Your task to perform on an android device: open device folders in google photos Image 0: 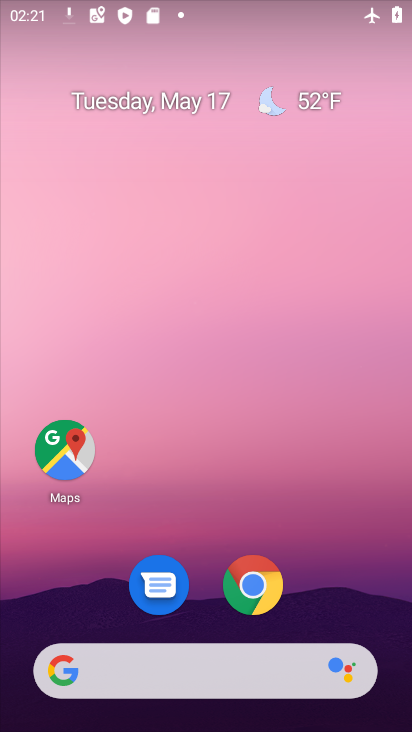
Step 0: drag from (341, 566) to (287, 66)
Your task to perform on an android device: open device folders in google photos Image 1: 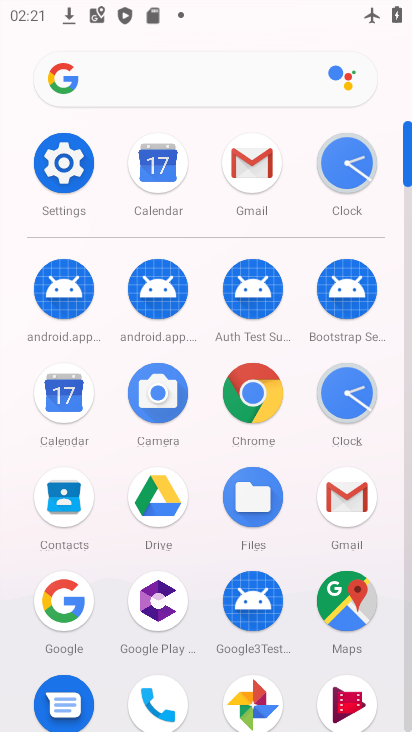
Step 1: drag from (213, 438) to (193, 204)
Your task to perform on an android device: open device folders in google photos Image 2: 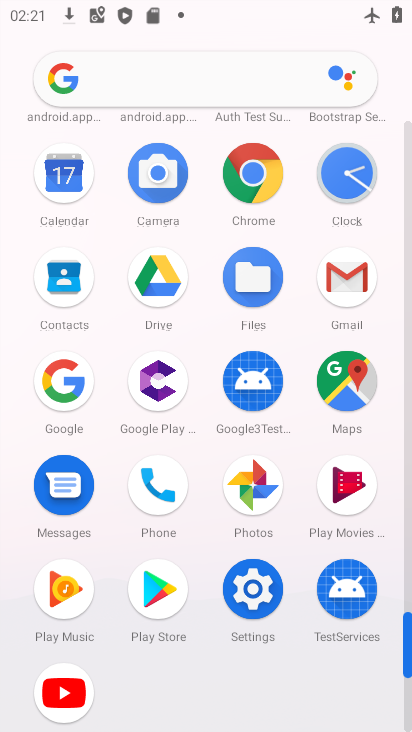
Step 2: click (251, 476)
Your task to perform on an android device: open device folders in google photos Image 3: 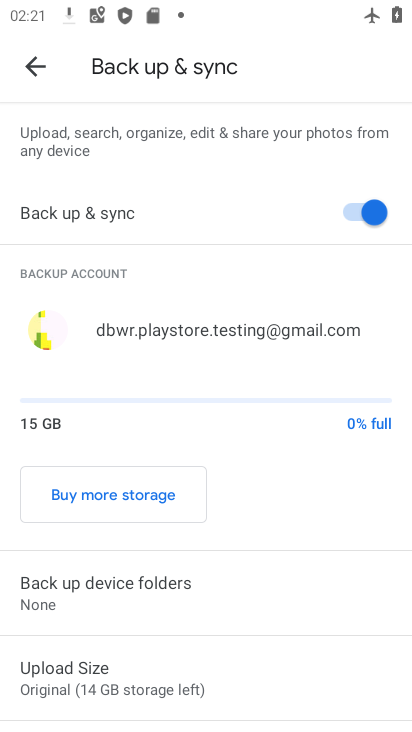
Step 3: click (29, 57)
Your task to perform on an android device: open device folders in google photos Image 4: 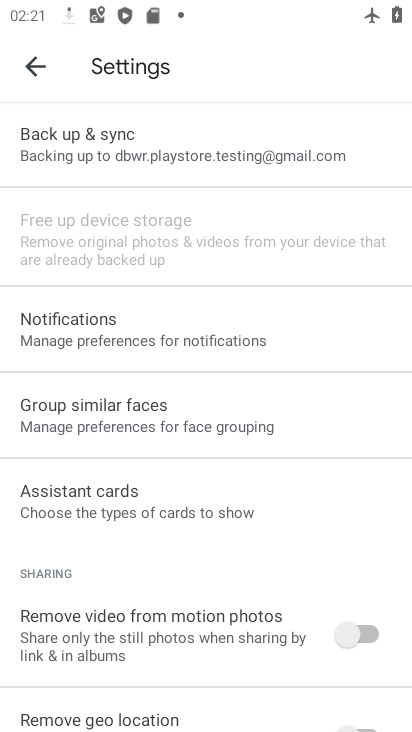
Step 4: click (33, 63)
Your task to perform on an android device: open device folders in google photos Image 5: 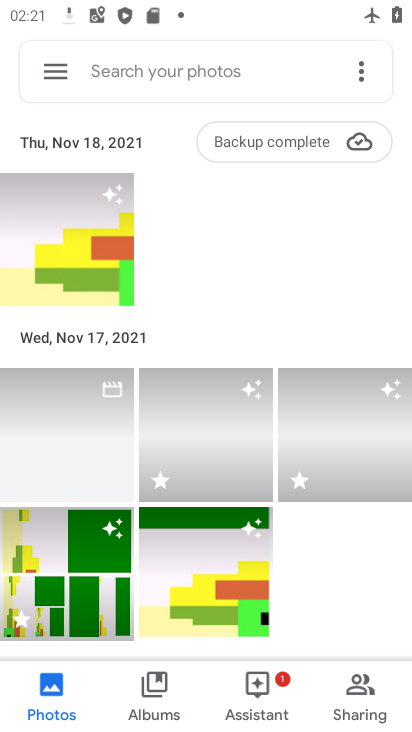
Step 5: click (59, 72)
Your task to perform on an android device: open device folders in google photos Image 6: 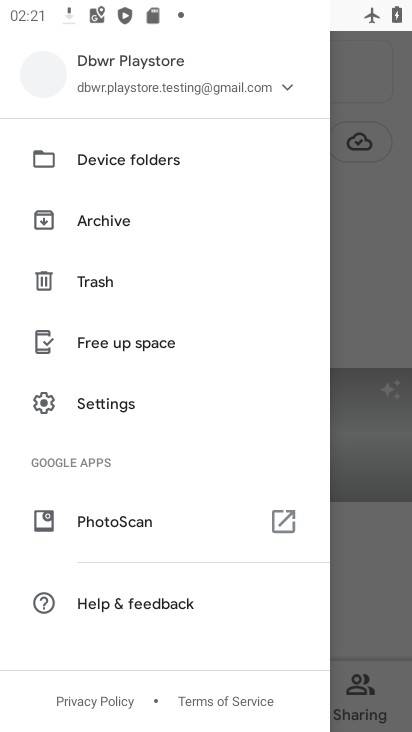
Step 6: click (100, 151)
Your task to perform on an android device: open device folders in google photos Image 7: 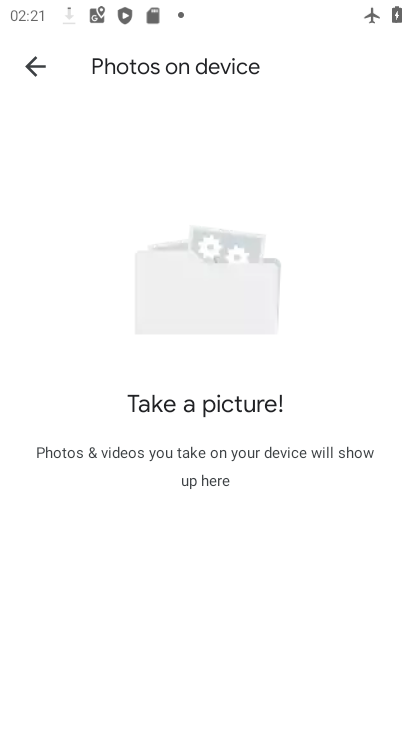
Step 7: task complete